Your task to perform on an android device: choose inbox layout in the gmail app Image 0: 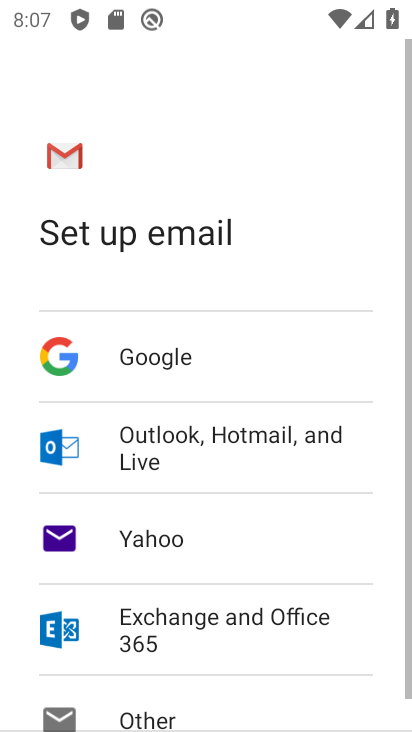
Step 0: press home button
Your task to perform on an android device: choose inbox layout in the gmail app Image 1: 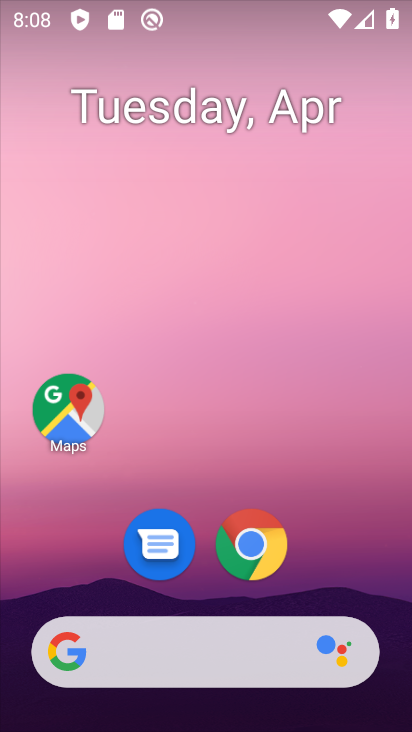
Step 1: drag from (185, 641) to (336, 112)
Your task to perform on an android device: choose inbox layout in the gmail app Image 2: 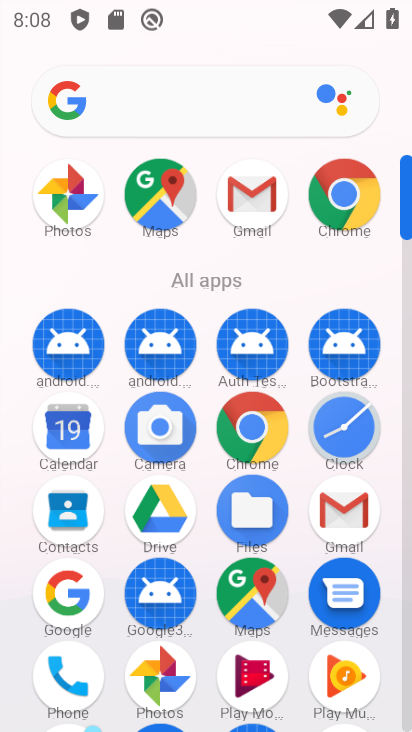
Step 2: click (254, 195)
Your task to perform on an android device: choose inbox layout in the gmail app Image 3: 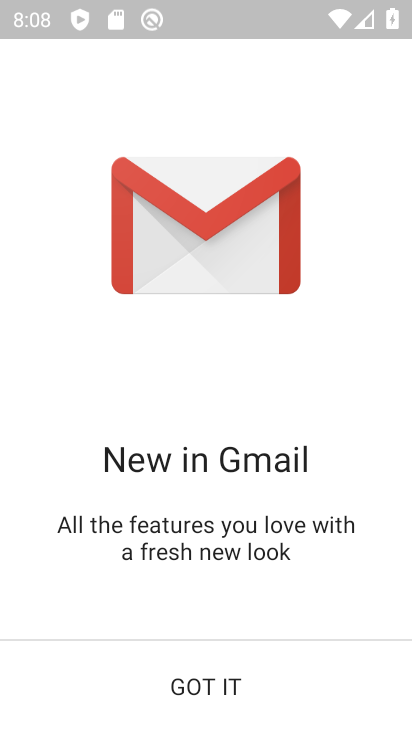
Step 3: click (195, 680)
Your task to perform on an android device: choose inbox layout in the gmail app Image 4: 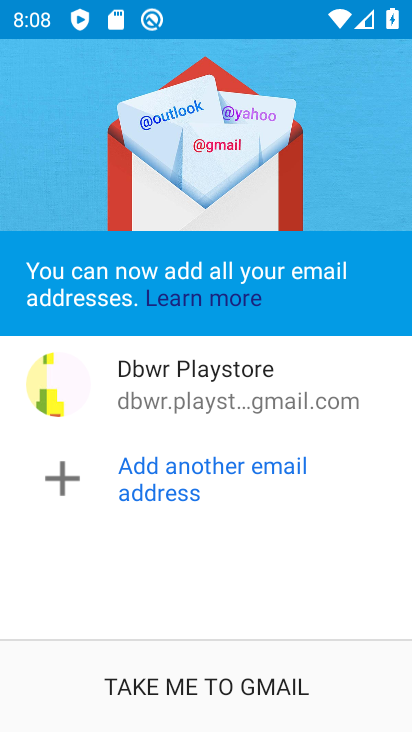
Step 4: click (197, 683)
Your task to perform on an android device: choose inbox layout in the gmail app Image 5: 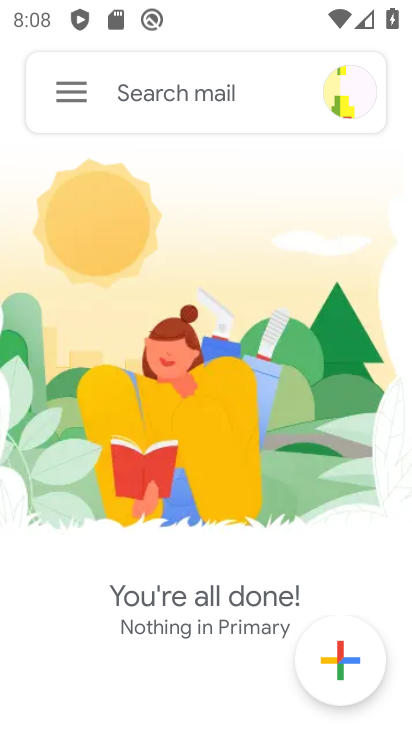
Step 5: click (69, 93)
Your task to perform on an android device: choose inbox layout in the gmail app Image 6: 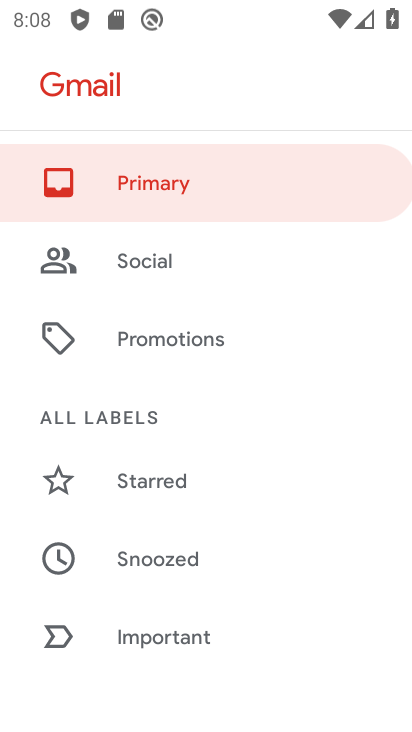
Step 6: drag from (241, 590) to (322, 118)
Your task to perform on an android device: choose inbox layout in the gmail app Image 7: 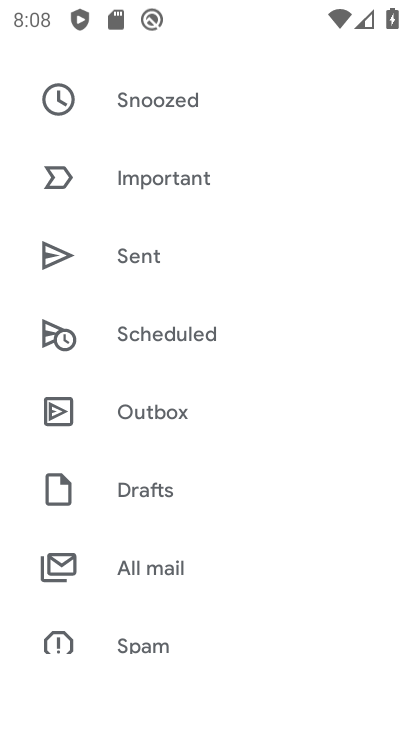
Step 7: drag from (224, 597) to (370, 44)
Your task to perform on an android device: choose inbox layout in the gmail app Image 8: 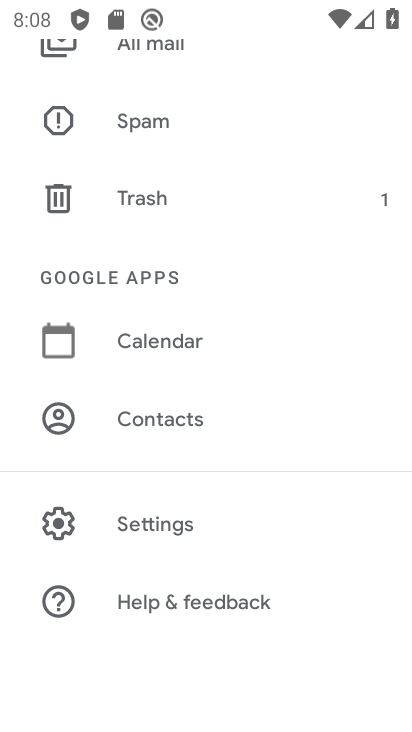
Step 8: click (154, 523)
Your task to perform on an android device: choose inbox layout in the gmail app Image 9: 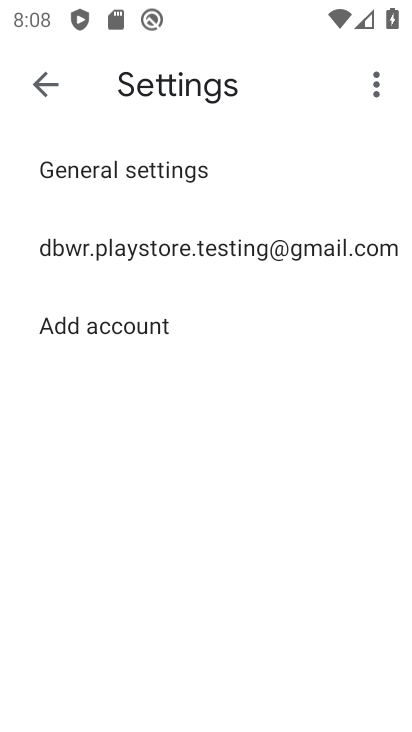
Step 9: click (298, 246)
Your task to perform on an android device: choose inbox layout in the gmail app Image 10: 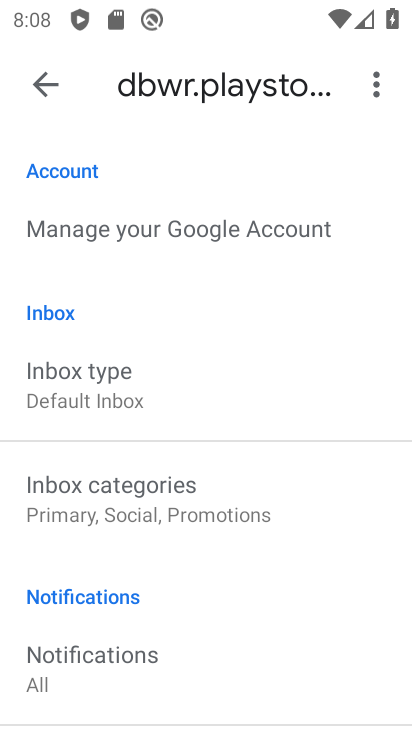
Step 10: click (93, 388)
Your task to perform on an android device: choose inbox layout in the gmail app Image 11: 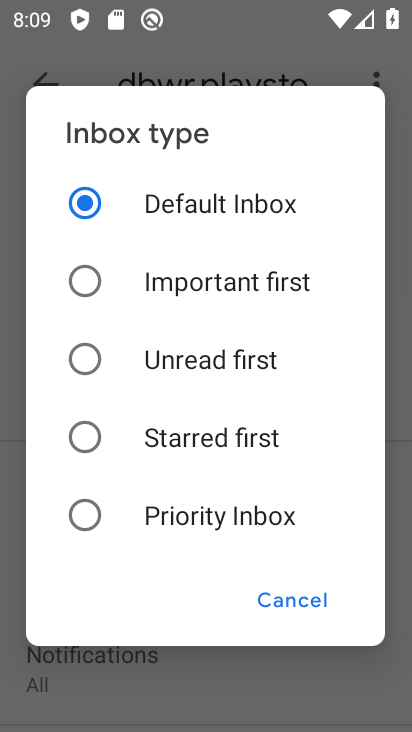
Step 11: click (85, 280)
Your task to perform on an android device: choose inbox layout in the gmail app Image 12: 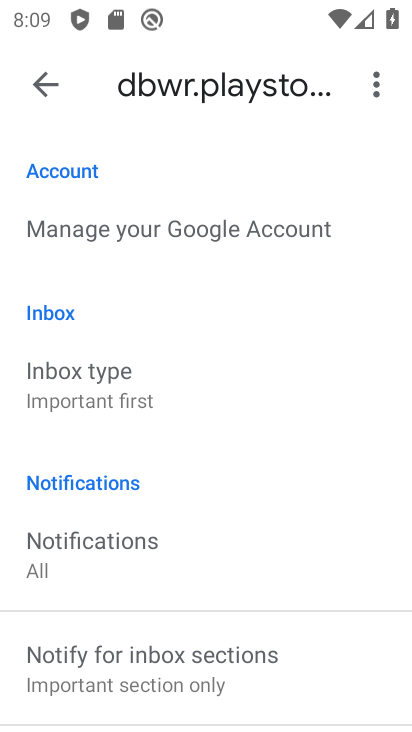
Step 12: task complete